Your task to perform on an android device: turn on notifications settings in the gmail app Image 0: 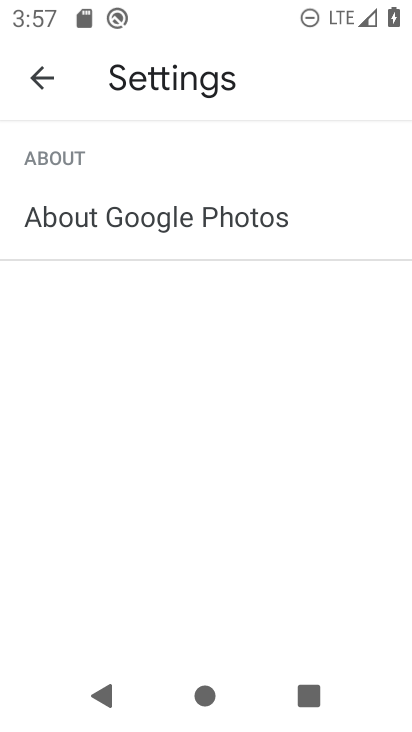
Step 0: press back button
Your task to perform on an android device: turn on notifications settings in the gmail app Image 1: 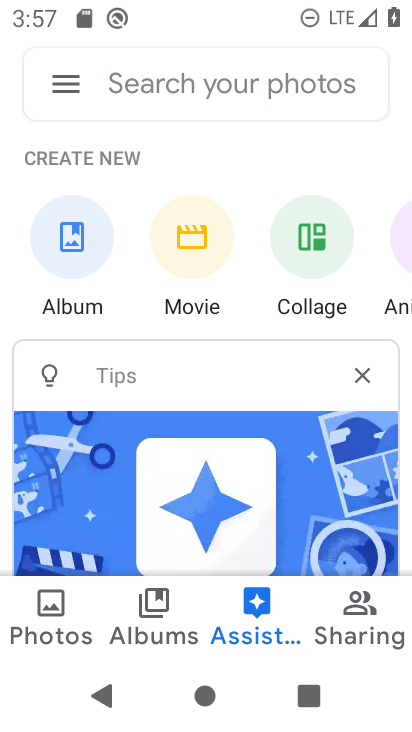
Step 1: press back button
Your task to perform on an android device: turn on notifications settings in the gmail app Image 2: 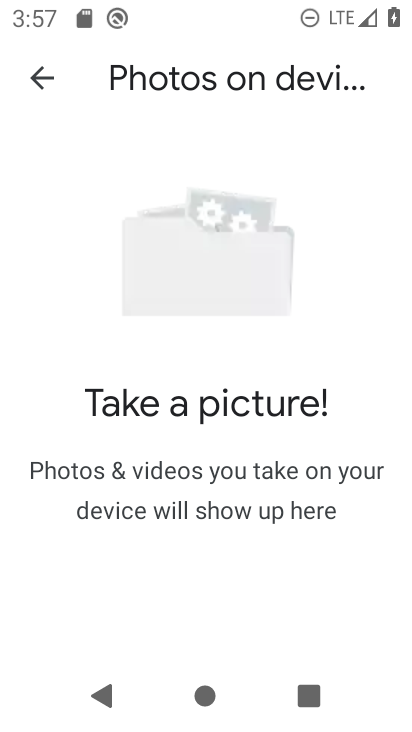
Step 2: press back button
Your task to perform on an android device: turn on notifications settings in the gmail app Image 3: 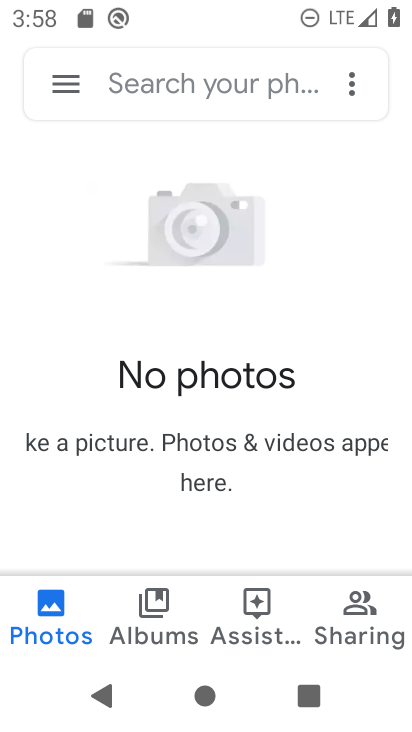
Step 3: press back button
Your task to perform on an android device: turn on notifications settings in the gmail app Image 4: 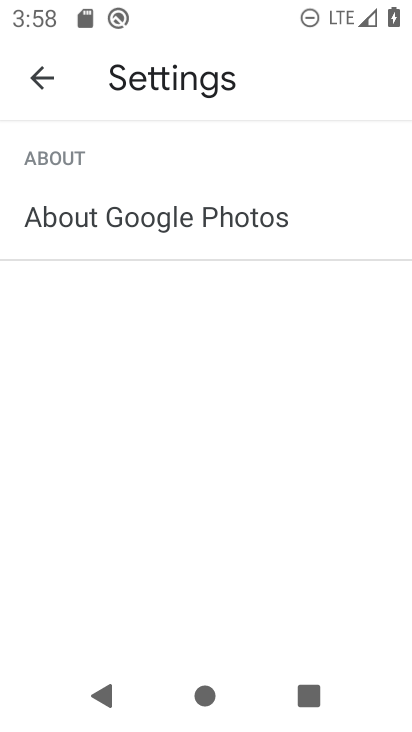
Step 4: press back button
Your task to perform on an android device: turn on notifications settings in the gmail app Image 5: 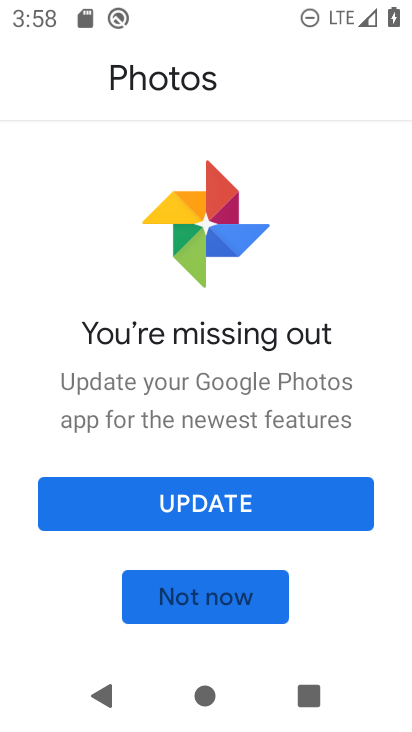
Step 5: press back button
Your task to perform on an android device: turn on notifications settings in the gmail app Image 6: 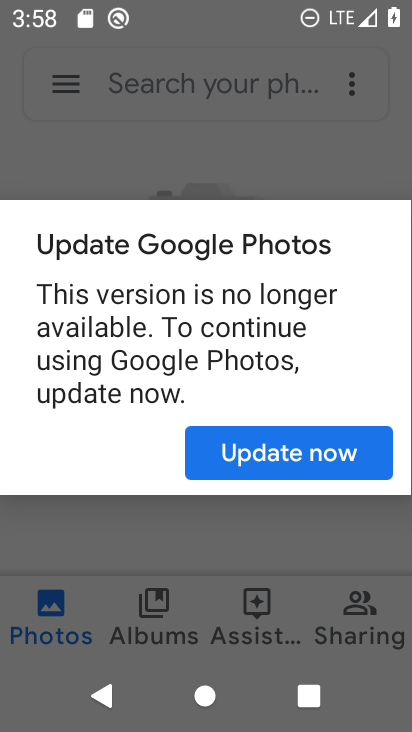
Step 6: press home button
Your task to perform on an android device: turn on notifications settings in the gmail app Image 7: 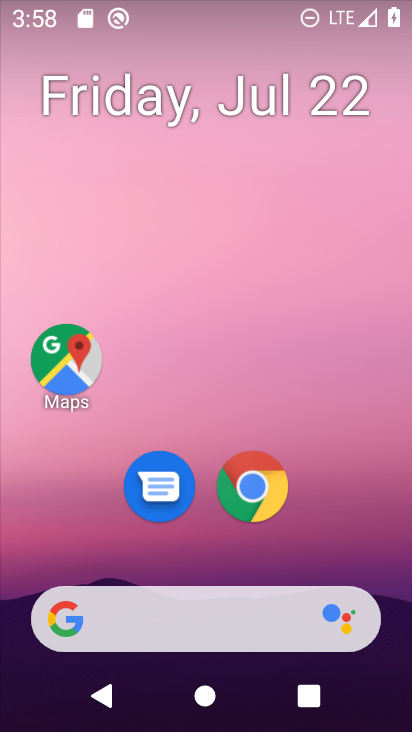
Step 7: drag from (170, 561) to (283, 1)
Your task to perform on an android device: turn on notifications settings in the gmail app Image 8: 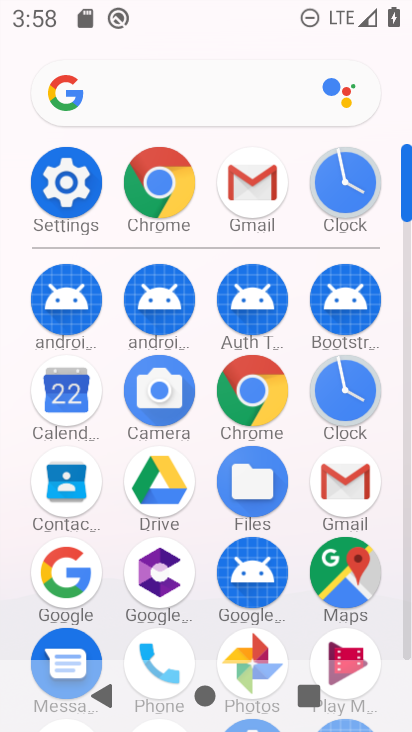
Step 8: click (243, 177)
Your task to perform on an android device: turn on notifications settings in the gmail app Image 9: 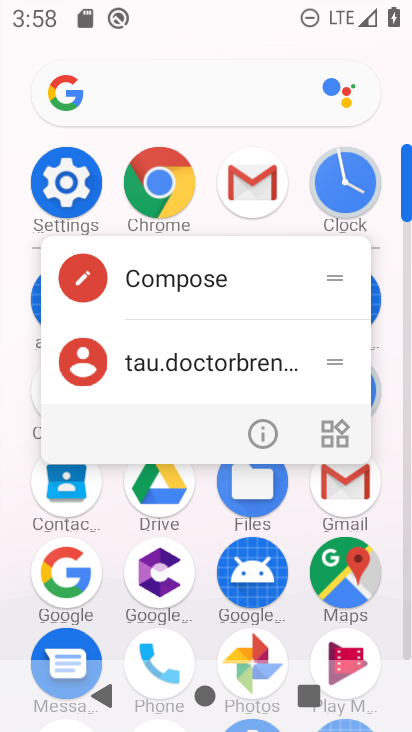
Step 9: click (255, 423)
Your task to perform on an android device: turn on notifications settings in the gmail app Image 10: 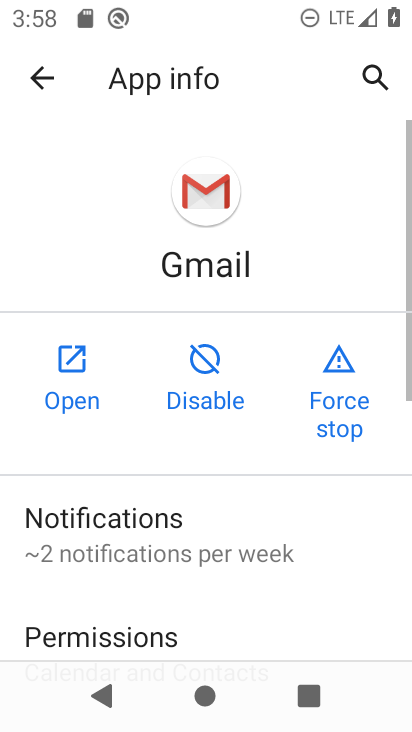
Step 10: click (135, 523)
Your task to perform on an android device: turn on notifications settings in the gmail app Image 11: 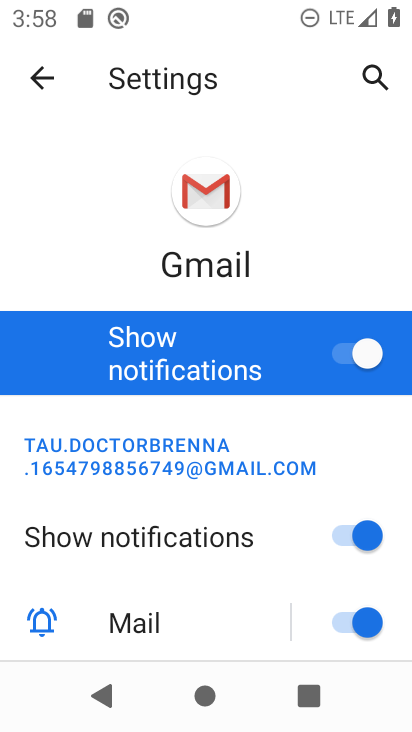
Step 11: task complete